Your task to perform on an android device: change the clock display to analog Image 0: 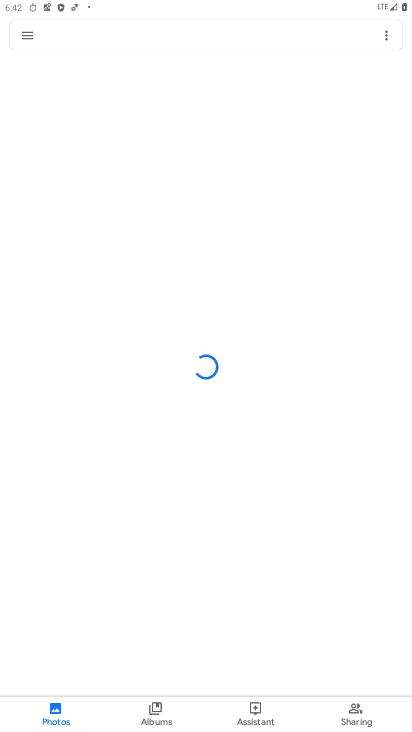
Step 0: press home button
Your task to perform on an android device: change the clock display to analog Image 1: 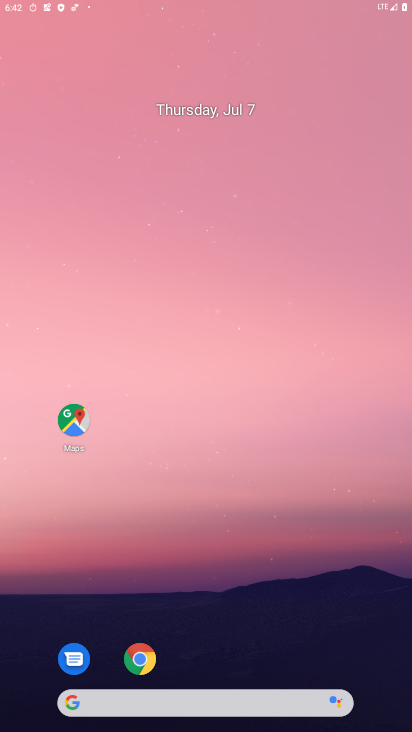
Step 1: drag from (388, 697) to (265, 21)
Your task to perform on an android device: change the clock display to analog Image 2: 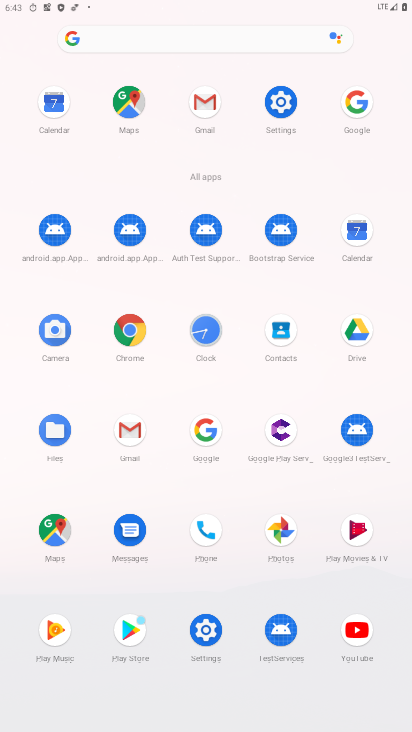
Step 2: click (198, 331)
Your task to perform on an android device: change the clock display to analog Image 3: 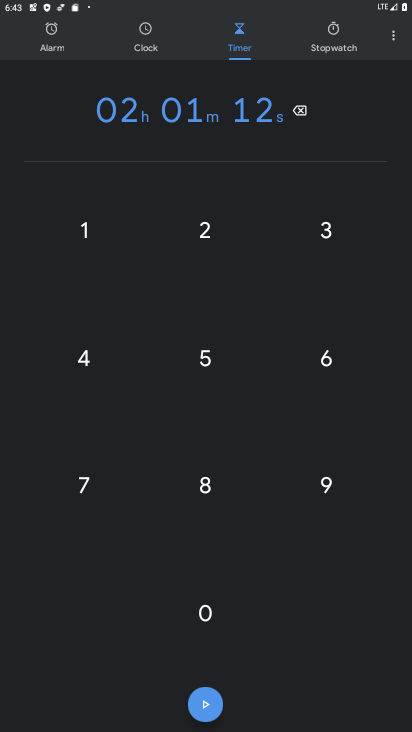
Step 3: click (389, 36)
Your task to perform on an android device: change the clock display to analog Image 4: 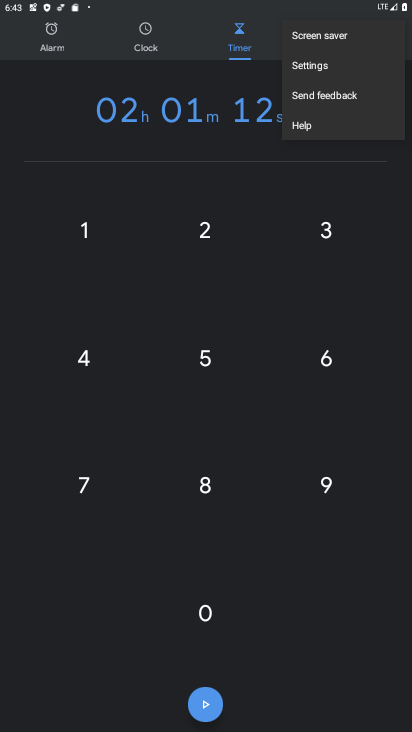
Step 4: click (319, 69)
Your task to perform on an android device: change the clock display to analog Image 5: 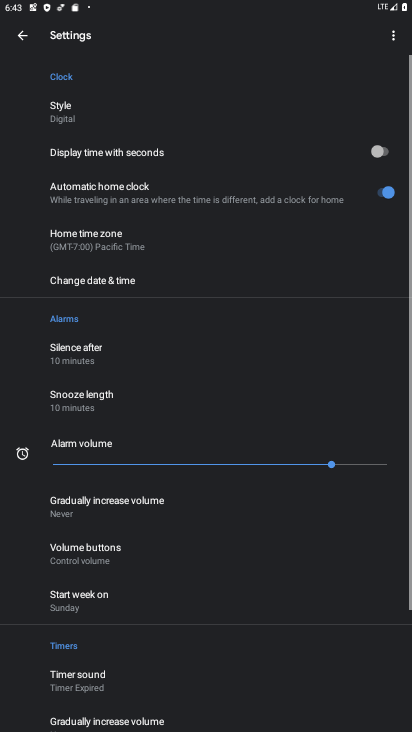
Step 5: click (74, 109)
Your task to perform on an android device: change the clock display to analog Image 6: 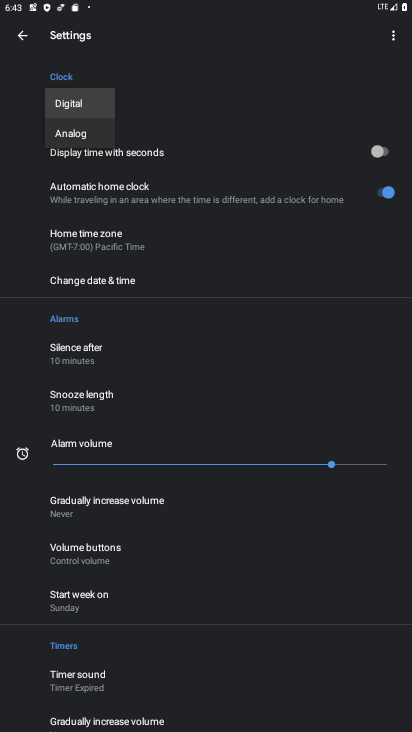
Step 6: click (87, 131)
Your task to perform on an android device: change the clock display to analog Image 7: 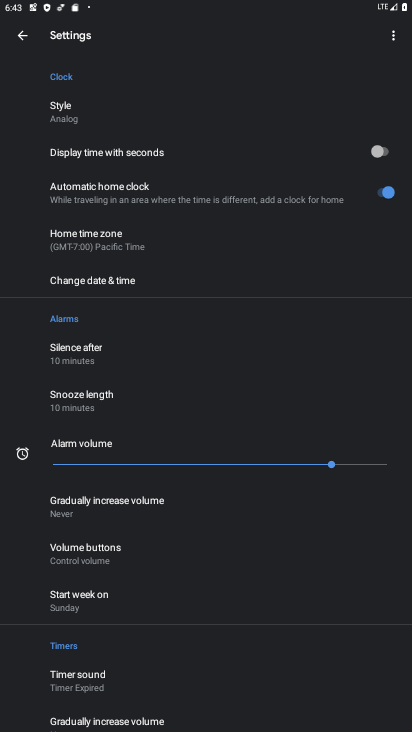
Step 7: task complete